Your task to perform on an android device: find which apps use the phone's location Image 0: 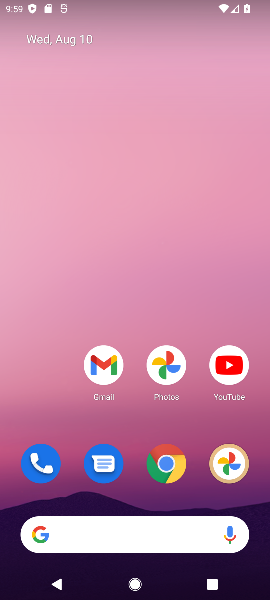
Step 0: drag from (22, 575) to (151, 87)
Your task to perform on an android device: find which apps use the phone's location Image 1: 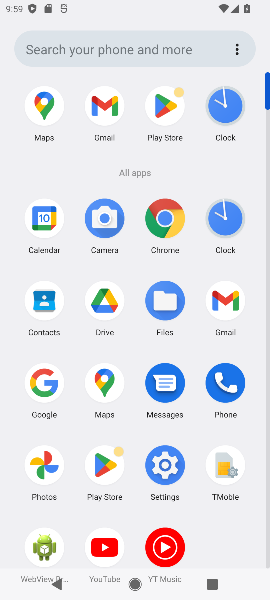
Step 1: click (170, 462)
Your task to perform on an android device: find which apps use the phone's location Image 2: 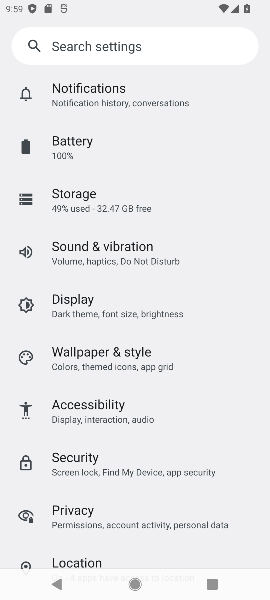
Step 2: click (102, 557)
Your task to perform on an android device: find which apps use the phone's location Image 3: 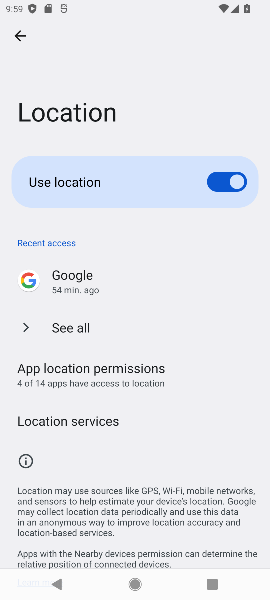
Step 3: click (63, 381)
Your task to perform on an android device: find which apps use the phone's location Image 4: 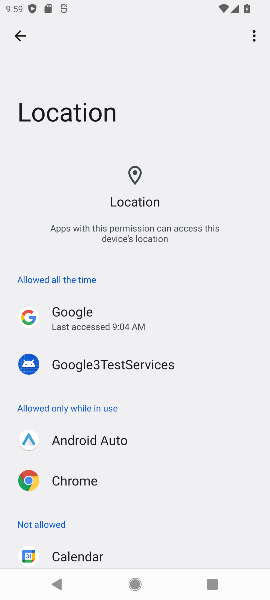
Step 4: task complete